Your task to perform on an android device: Open Maps and search for coffee Image 0: 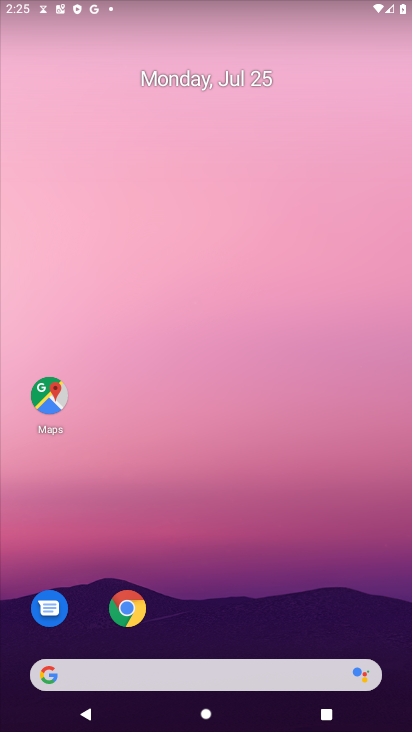
Step 0: click (53, 396)
Your task to perform on an android device: Open Maps and search for coffee Image 1: 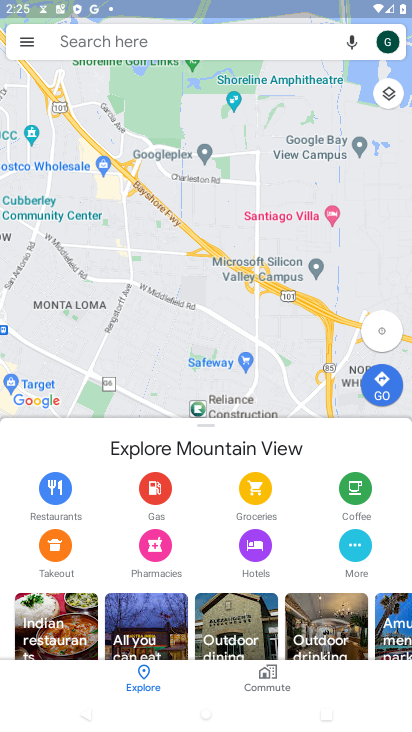
Step 1: click (191, 36)
Your task to perform on an android device: Open Maps and search for coffee Image 2: 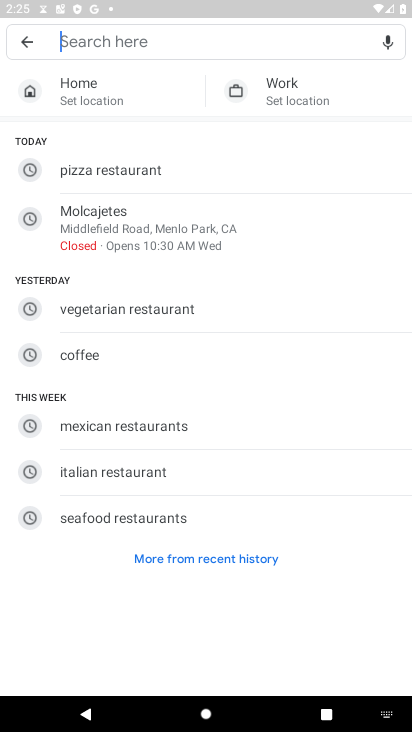
Step 2: click (76, 355)
Your task to perform on an android device: Open Maps and search for coffee Image 3: 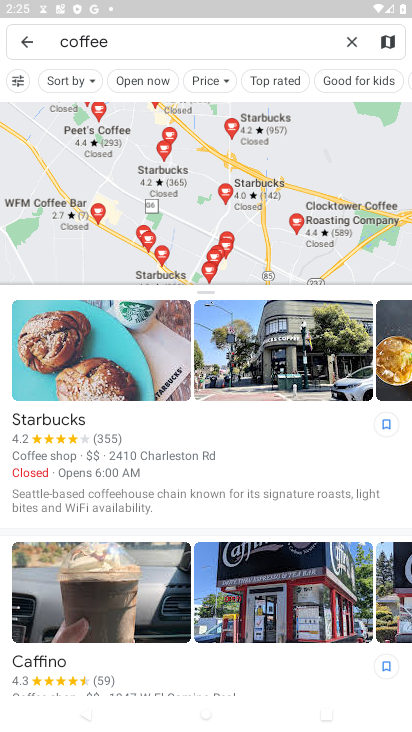
Step 3: task complete